Your task to perform on an android device: What's on my calendar tomorrow? Image 0: 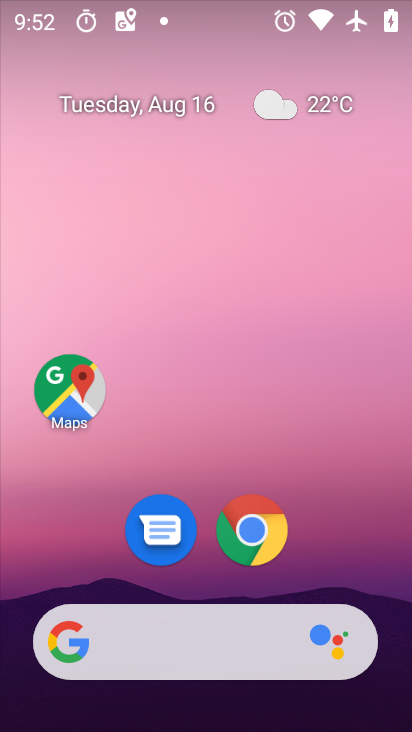
Step 0: click (173, 102)
Your task to perform on an android device: What's on my calendar tomorrow? Image 1: 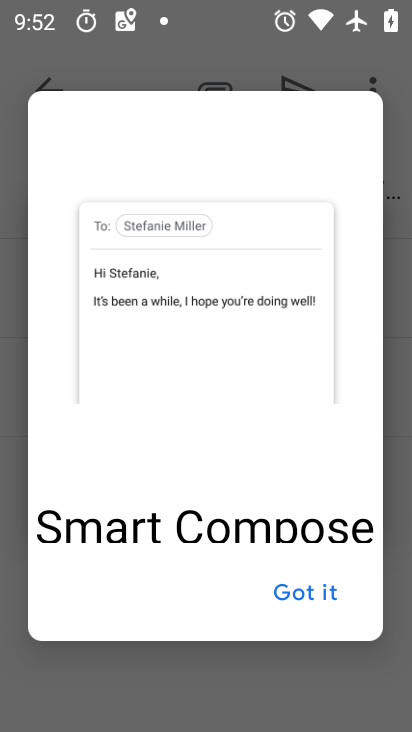
Step 1: click (317, 570)
Your task to perform on an android device: What's on my calendar tomorrow? Image 2: 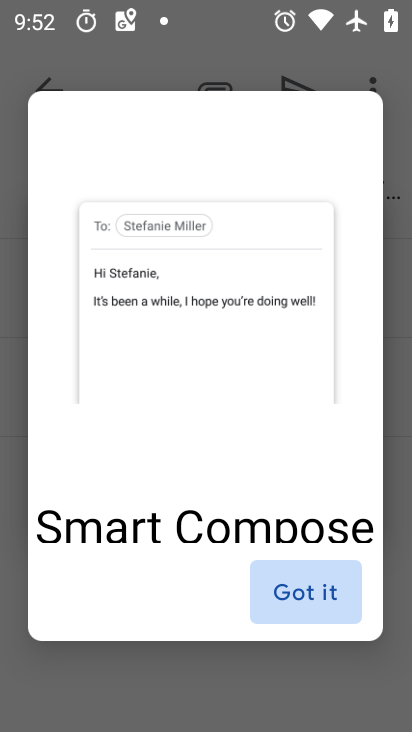
Step 2: click (311, 582)
Your task to perform on an android device: What's on my calendar tomorrow? Image 3: 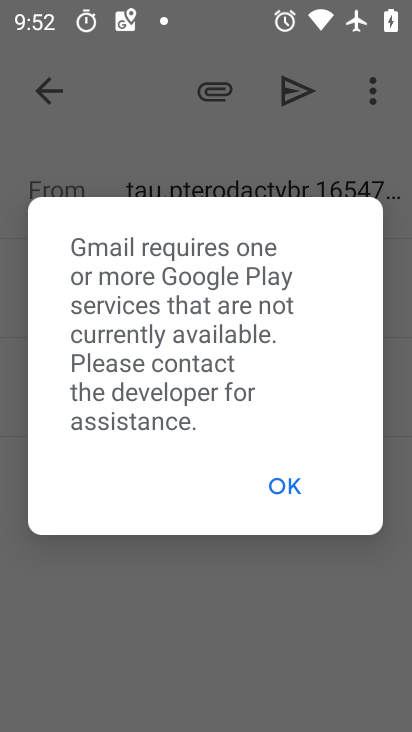
Step 3: press back button
Your task to perform on an android device: What's on my calendar tomorrow? Image 4: 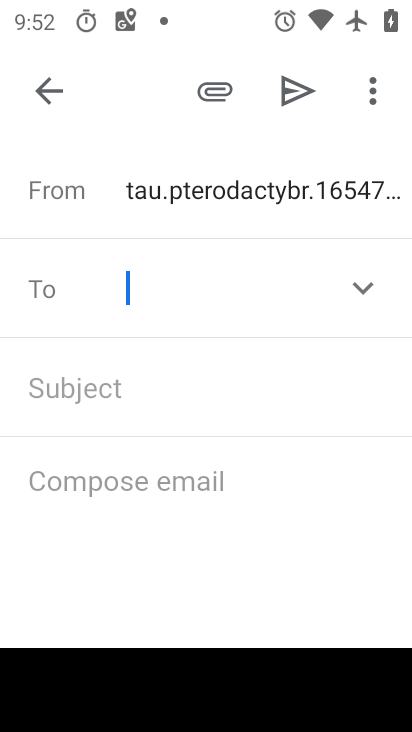
Step 4: press back button
Your task to perform on an android device: What's on my calendar tomorrow? Image 5: 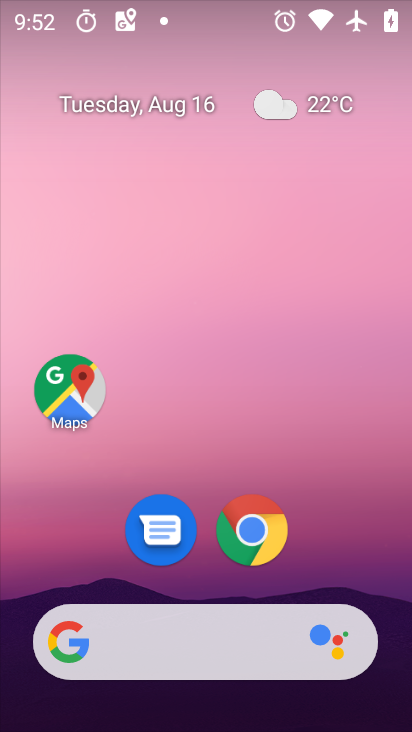
Step 5: click (162, 100)
Your task to perform on an android device: What's on my calendar tomorrow? Image 6: 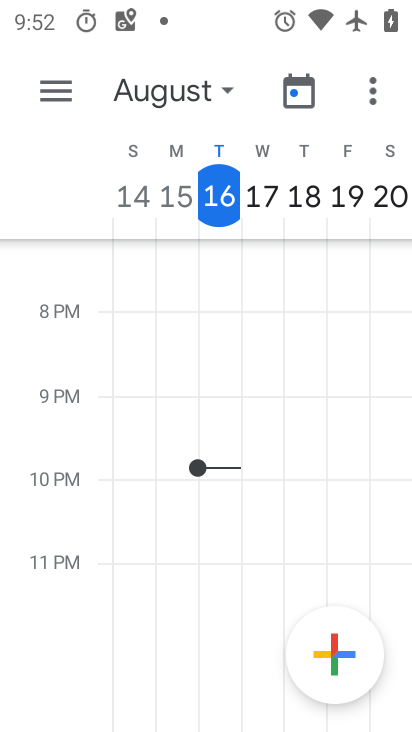
Step 6: click (271, 190)
Your task to perform on an android device: What's on my calendar tomorrow? Image 7: 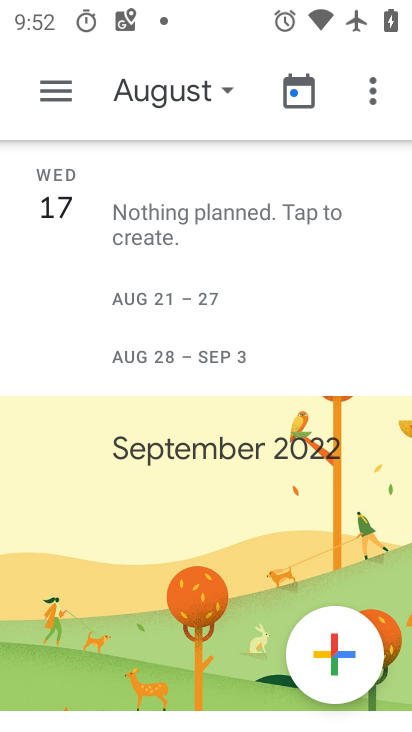
Step 7: task complete